Your task to perform on an android device: Open Chrome and go to the settings page Image 0: 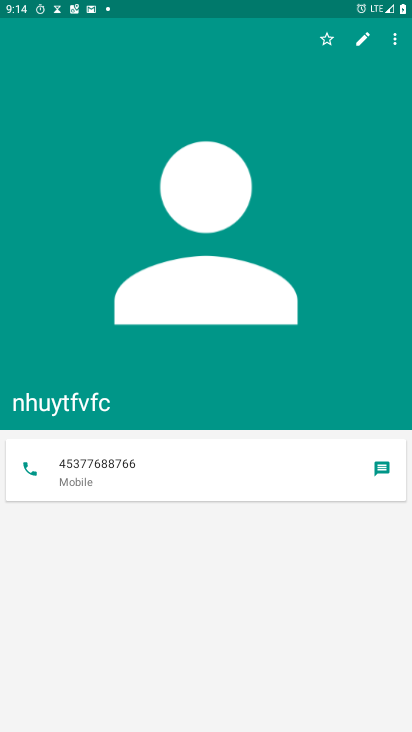
Step 0: press home button
Your task to perform on an android device: Open Chrome and go to the settings page Image 1: 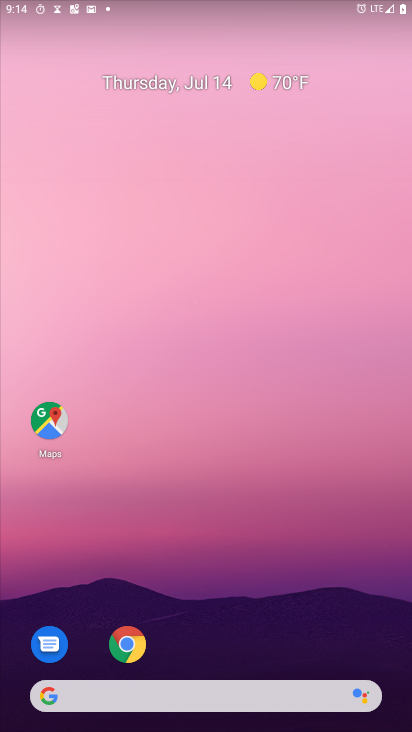
Step 1: click (134, 650)
Your task to perform on an android device: Open Chrome and go to the settings page Image 2: 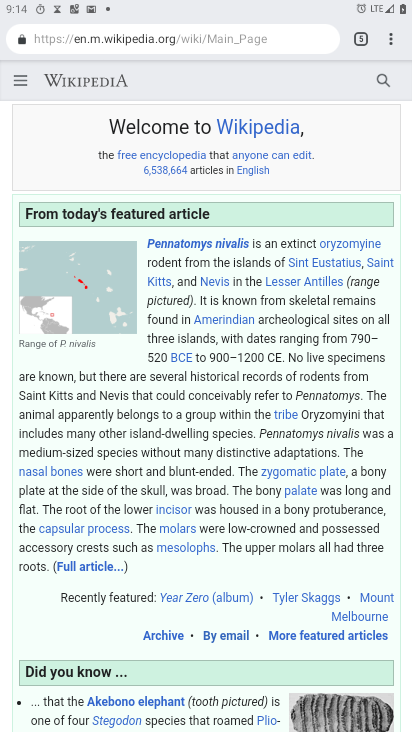
Step 2: drag from (392, 39) to (257, 521)
Your task to perform on an android device: Open Chrome and go to the settings page Image 3: 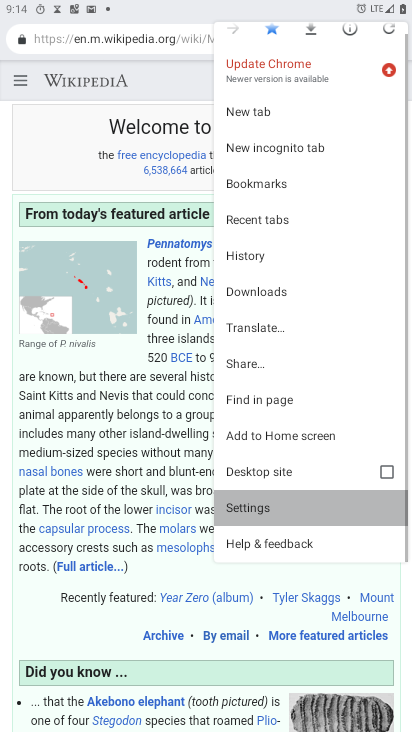
Step 3: click (257, 521)
Your task to perform on an android device: Open Chrome and go to the settings page Image 4: 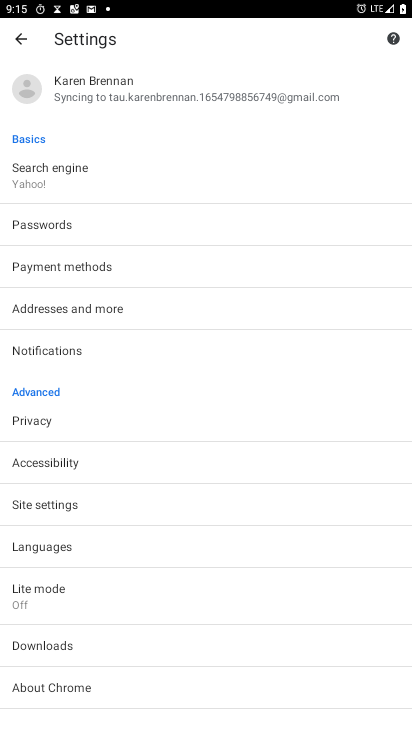
Step 4: task complete